Your task to perform on an android device: Go to Amazon Image 0: 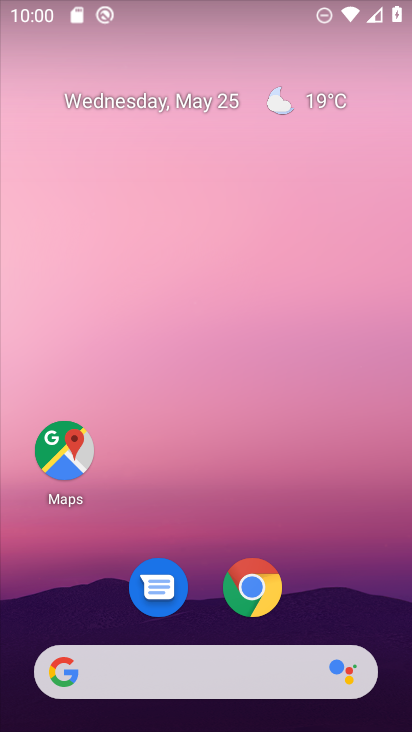
Step 0: click (259, 589)
Your task to perform on an android device: Go to Amazon Image 1: 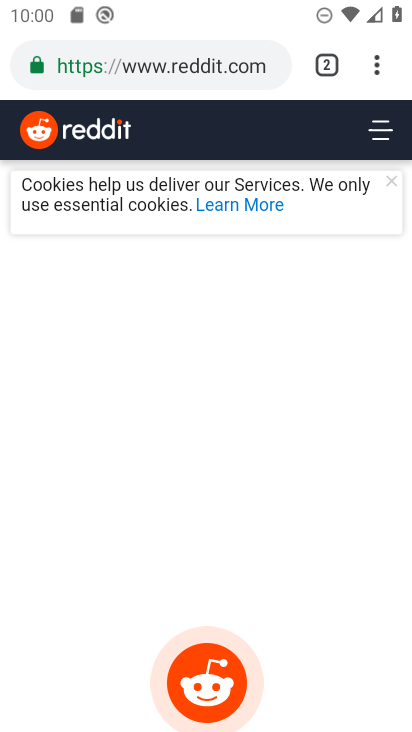
Step 1: click (265, 69)
Your task to perform on an android device: Go to Amazon Image 2: 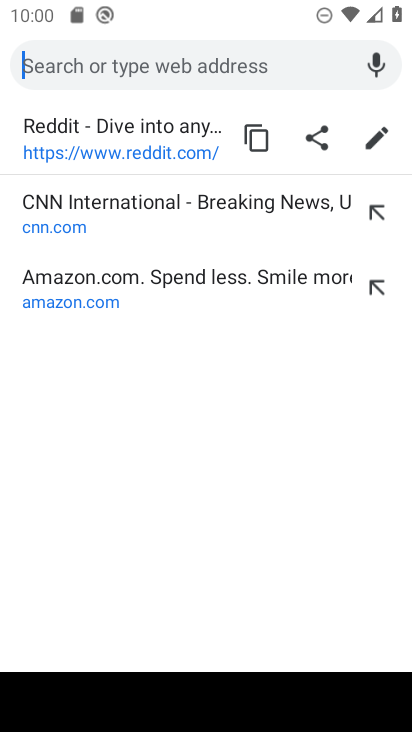
Step 2: type "amazon"
Your task to perform on an android device: Go to Amazon Image 3: 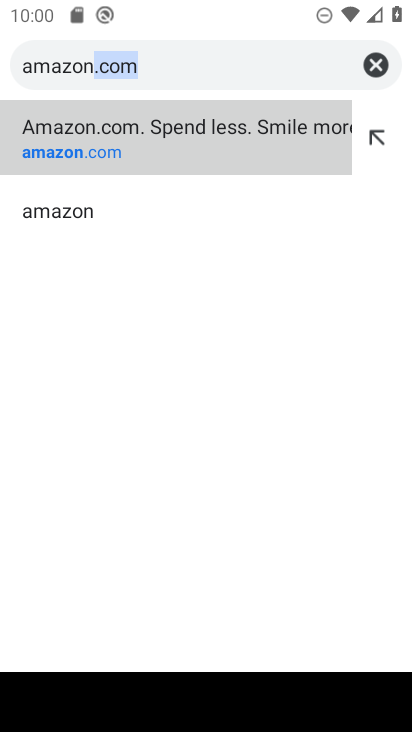
Step 3: click (106, 134)
Your task to perform on an android device: Go to Amazon Image 4: 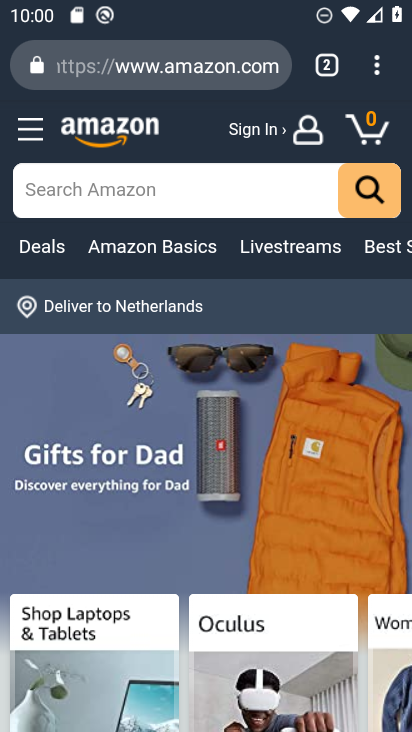
Step 4: task complete